Your task to perform on an android device: Is it going to rain today? Image 0: 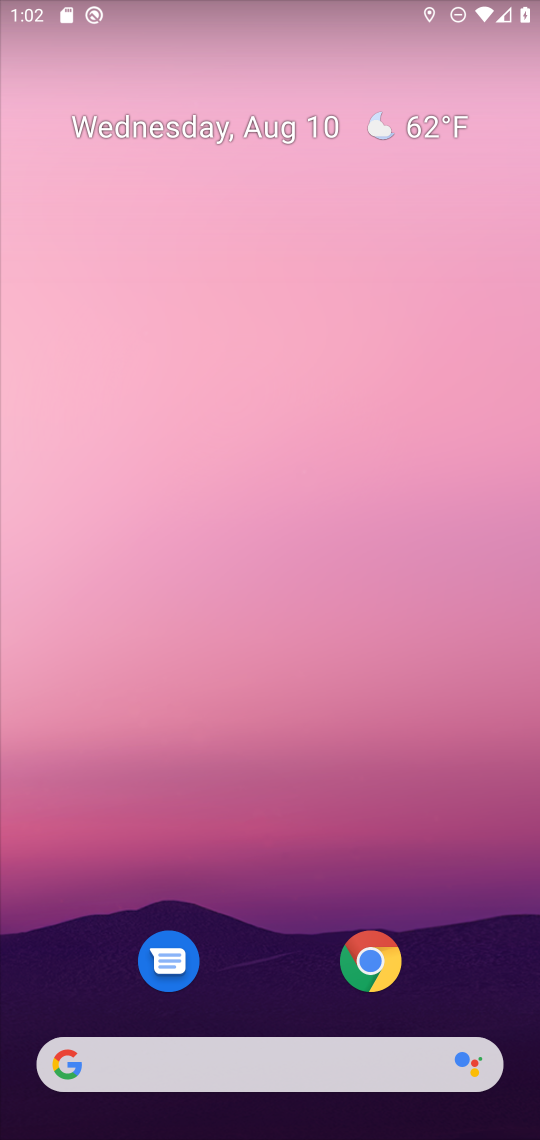
Step 0: drag from (258, 928) to (213, 209)
Your task to perform on an android device: Is it going to rain today? Image 1: 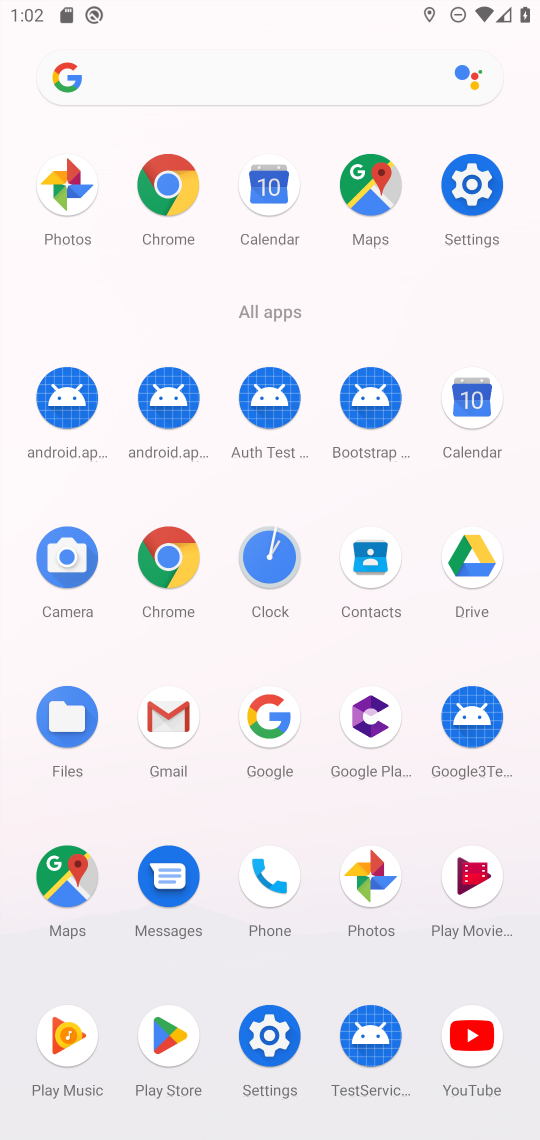
Step 1: click (282, 726)
Your task to perform on an android device: Is it going to rain today? Image 2: 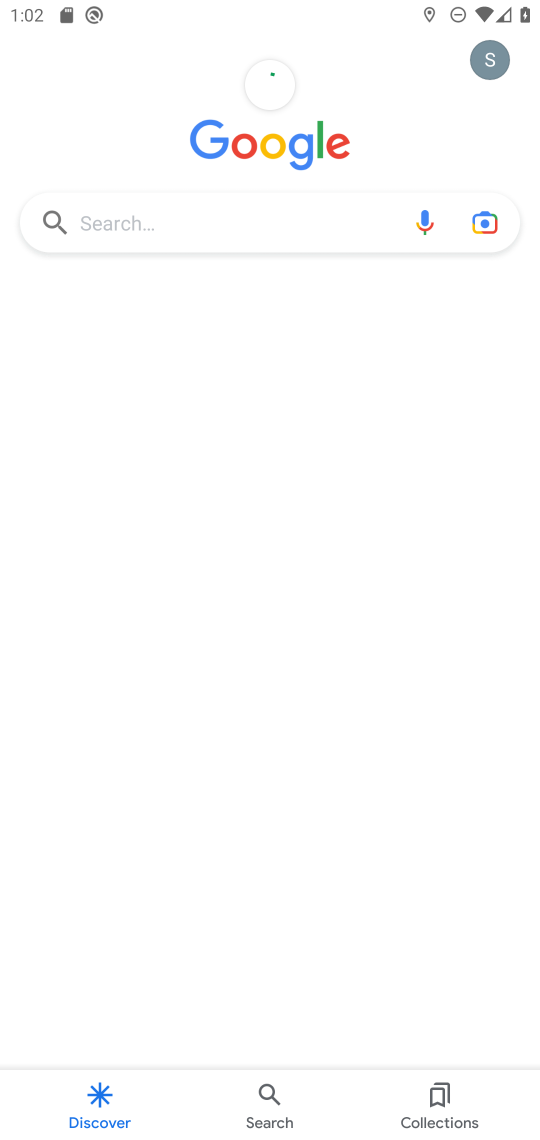
Step 2: click (160, 210)
Your task to perform on an android device: Is it going to rain today? Image 3: 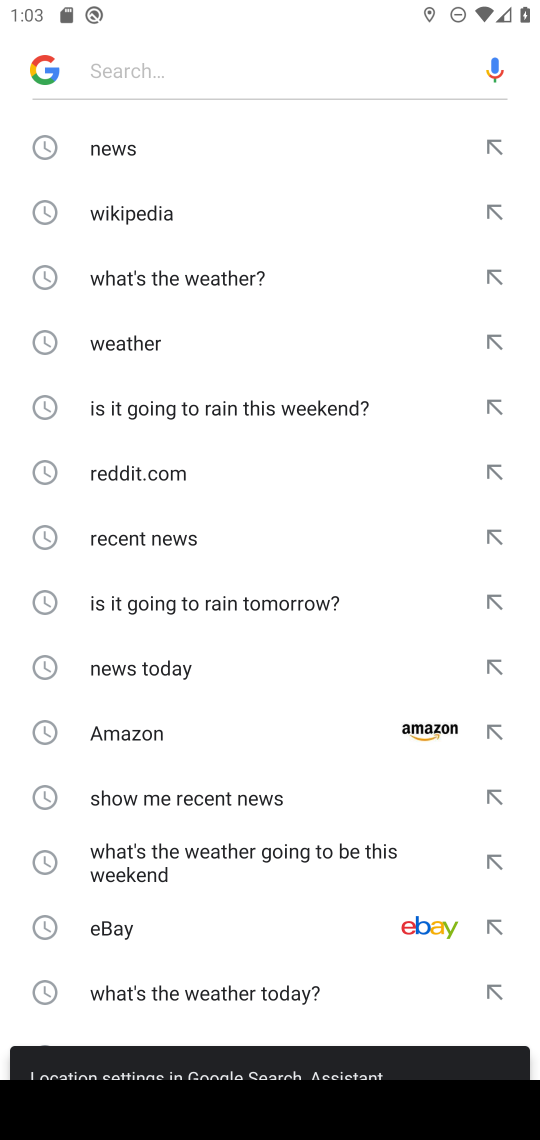
Step 3: click (121, 339)
Your task to perform on an android device: Is it going to rain today? Image 4: 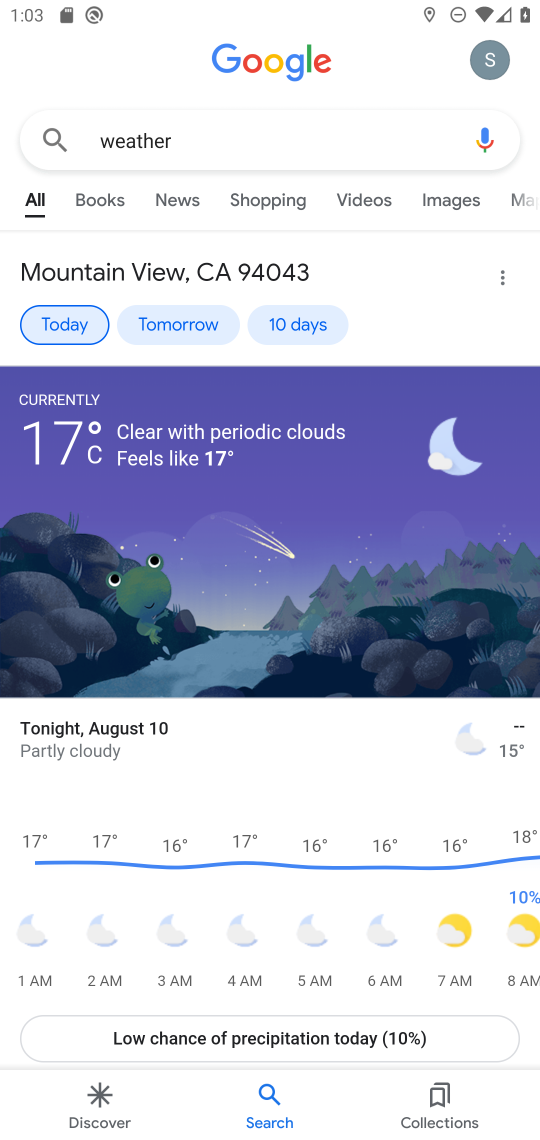
Step 4: task complete